Your task to perform on an android device: set the timer Image 0: 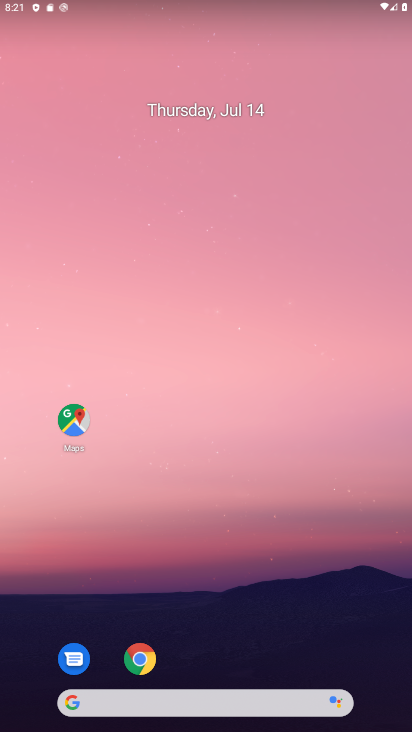
Step 0: click (271, 425)
Your task to perform on an android device: set the timer Image 1: 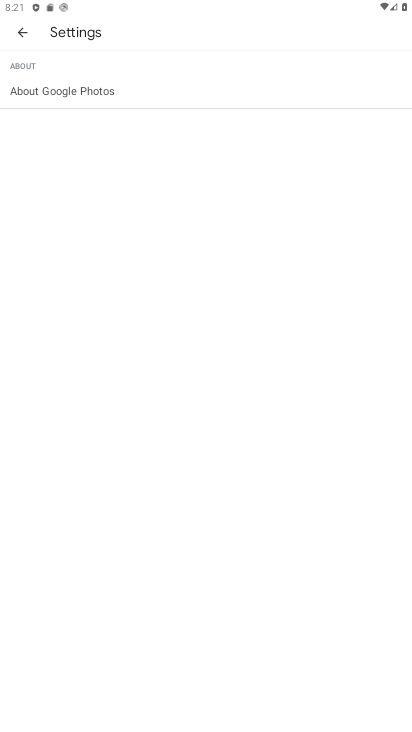
Step 1: press home button
Your task to perform on an android device: set the timer Image 2: 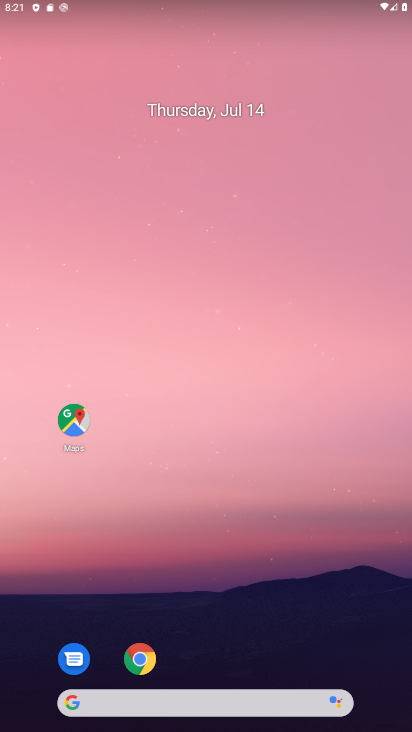
Step 2: drag from (53, 674) to (91, 575)
Your task to perform on an android device: set the timer Image 3: 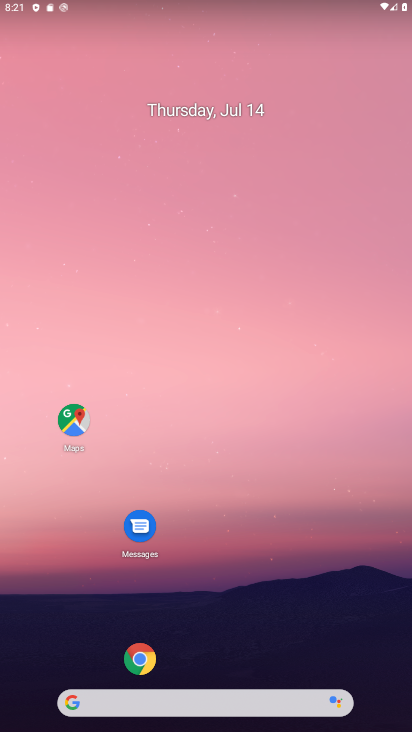
Step 3: drag from (207, 630) to (234, 464)
Your task to perform on an android device: set the timer Image 4: 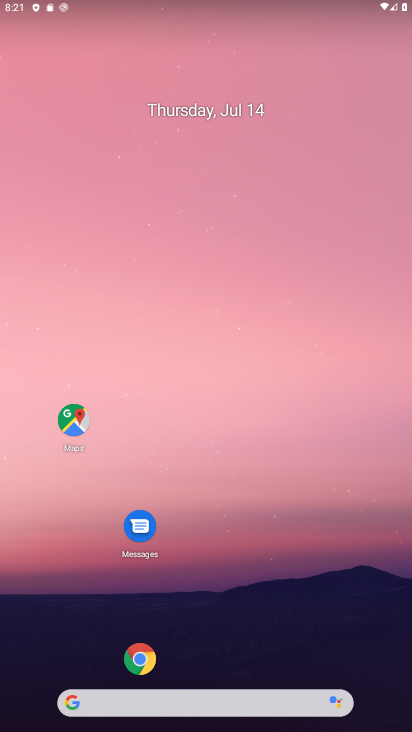
Step 4: drag from (234, 608) to (260, 417)
Your task to perform on an android device: set the timer Image 5: 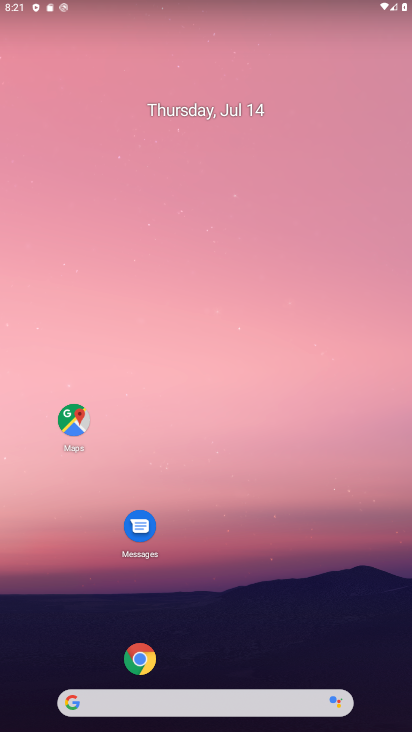
Step 5: drag from (159, 691) to (194, 457)
Your task to perform on an android device: set the timer Image 6: 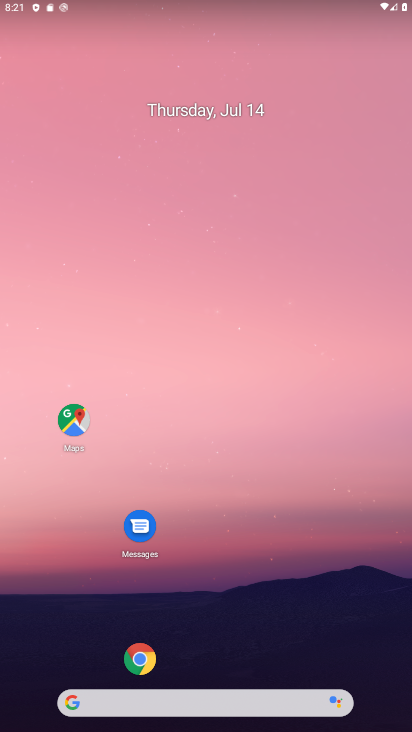
Step 6: drag from (286, 725) to (335, 352)
Your task to perform on an android device: set the timer Image 7: 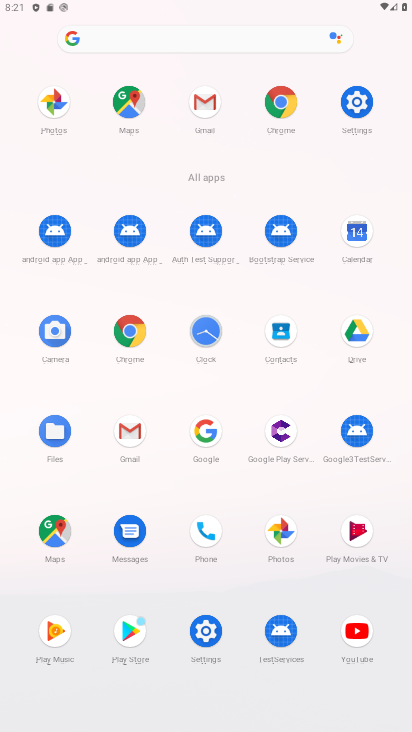
Step 7: click (221, 341)
Your task to perform on an android device: set the timer Image 8: 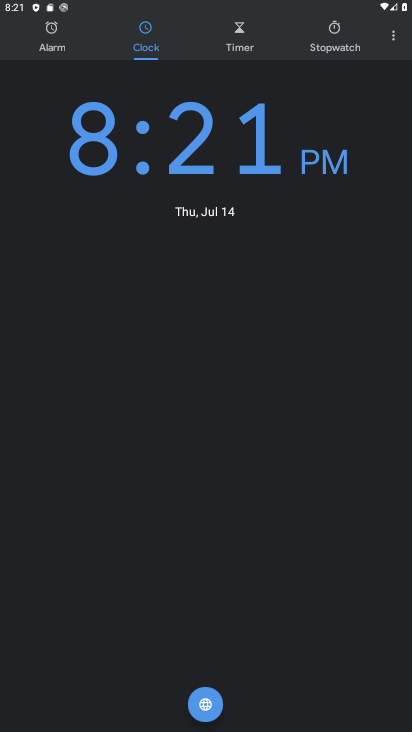
Step 8: click (249, 39)
Your task to perform on an android device: set the timer Image 9: 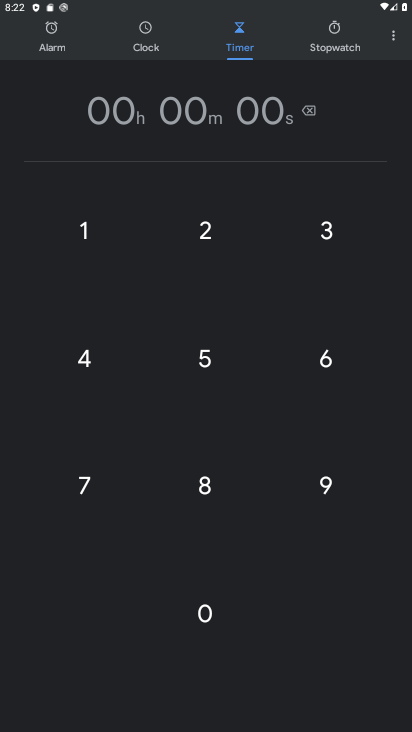
Step 9: click (206, 618)
Your task to perform on an android device: set the timer Image 10: 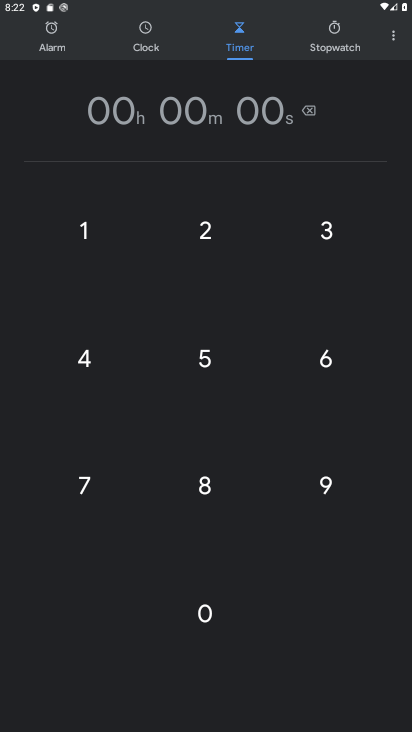
Step 10: click (218, 355)
Your task to perform on an android device: set the timer Image 11: 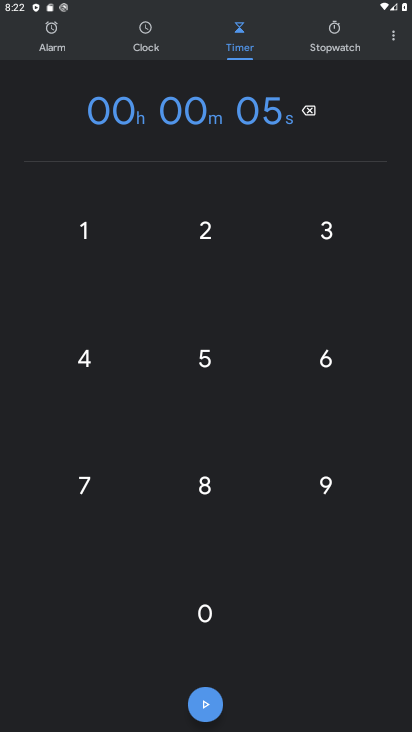
Step 11: click (209, 623)
Your task to perform on an android device: set the timer Image 12: 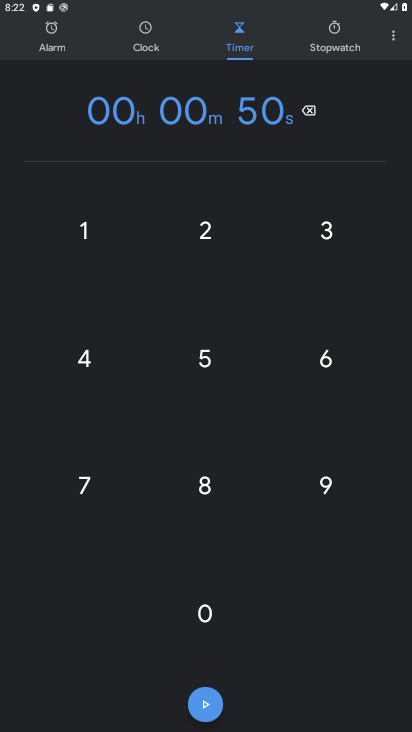
Step 12: click (209, 623)
Your task to perform on an android device: set the timer Image 13: 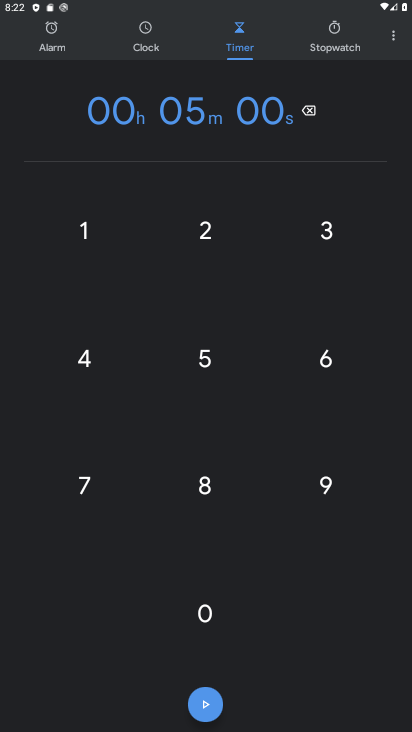
Step 13: click (189, 697)
Your task to perform on an android device: set the timer Image 14: 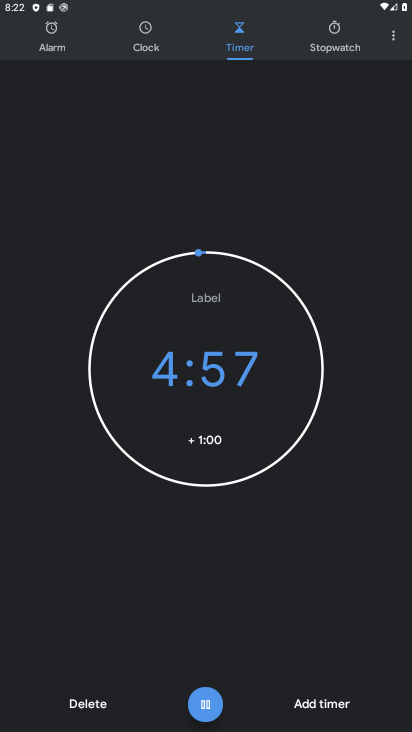
Step 14: task complete